Your task to perform on an android device: Open the phone app and click the voicemail tab. Image 0: 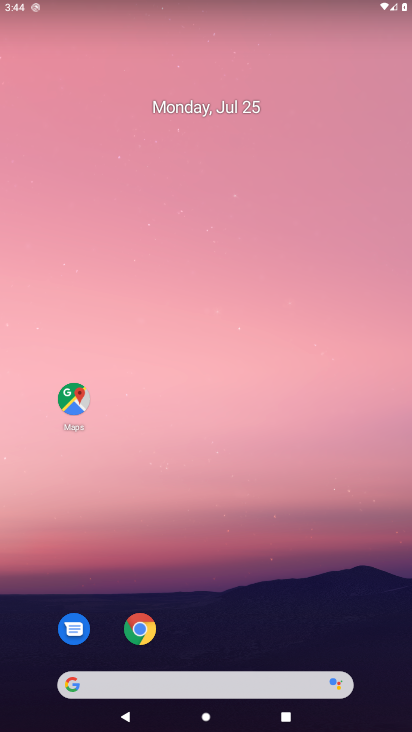
Step 0: drag from (35, 673) to (208, 301)
Your task to perform on an android device: Open the phone app and click the voicemail tab. Image 1: 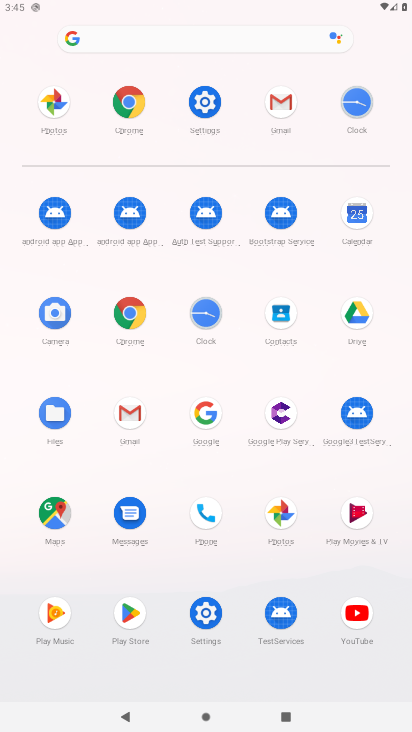
Step 1: click (198, 522)
Your task to perform on an android device: Open the phone app and click the voicemail tab. Image 2: 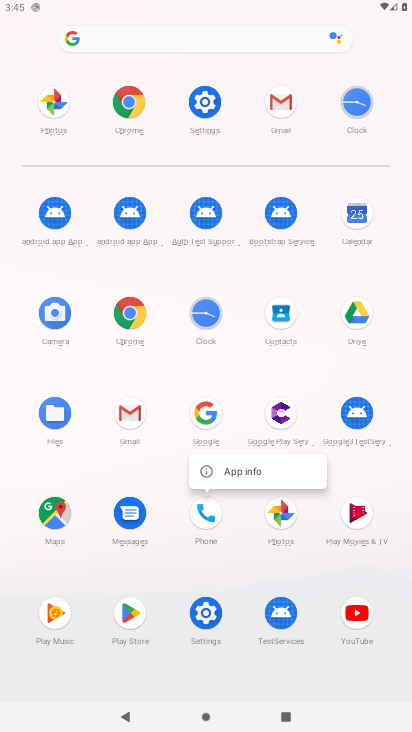
Step 2: click (204, 531)
Your task to perform on an android device: Open the phone app and click the voicemail tab. Image 3: 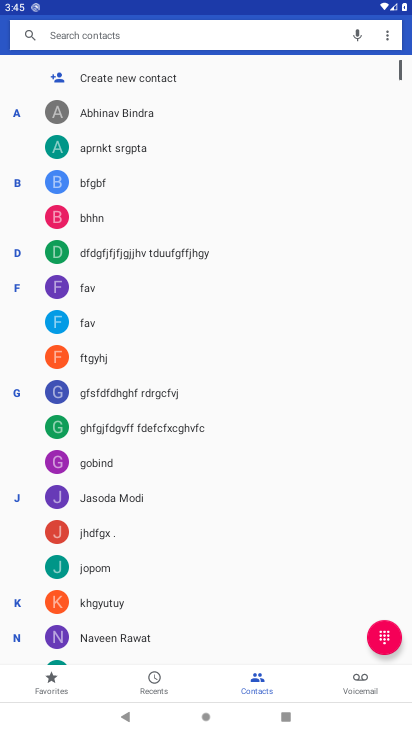
Step 3: click (356, 679)
Your task to perform on an android device: Open the phone app and click the voicemail tab. Image 4: 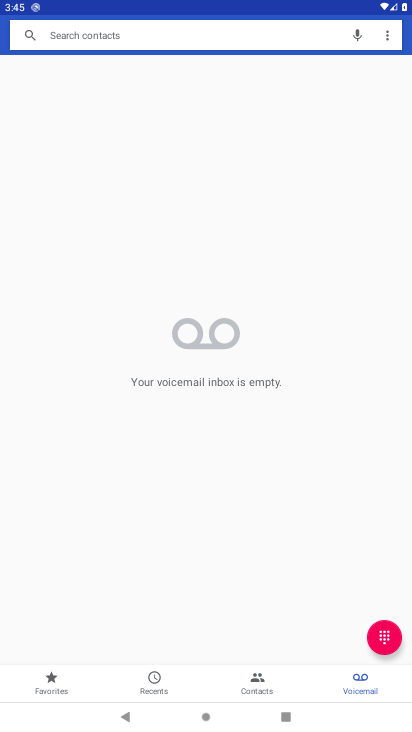
Step 4: task complete